Your task to perform on an android device: Open location settings Image 0: 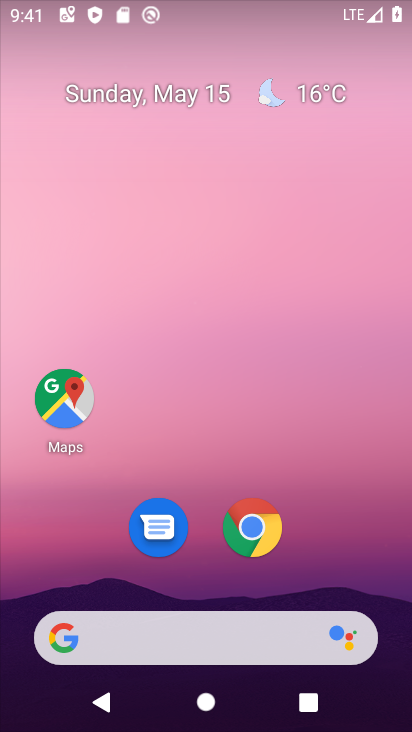
Step 0: drag from (340, 552) to (321, 2)
Your task to perform on an android device: Open location settings Image 1: 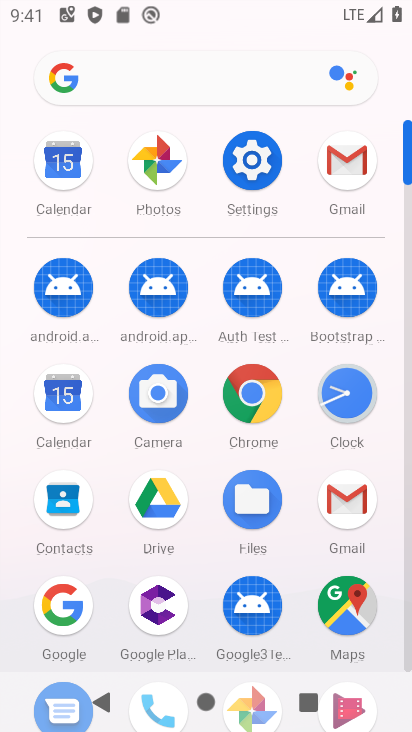
Step 1: click (251, 170)
Your task to perform on an android device: Open location settings Image 2: 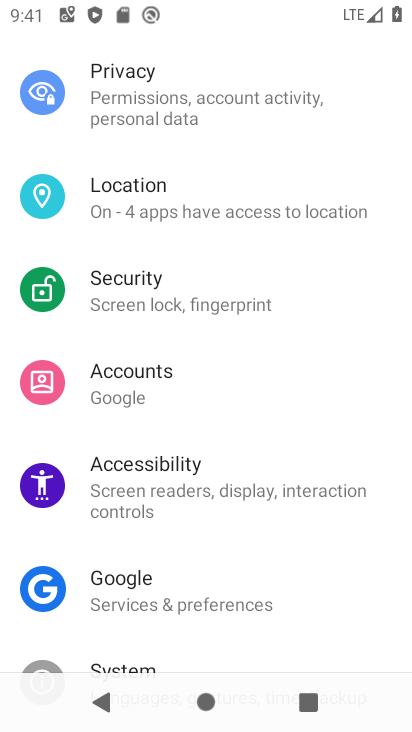
Step 2: click (161, 198)
Your task to perform on an android device: Open location settings Image 3: 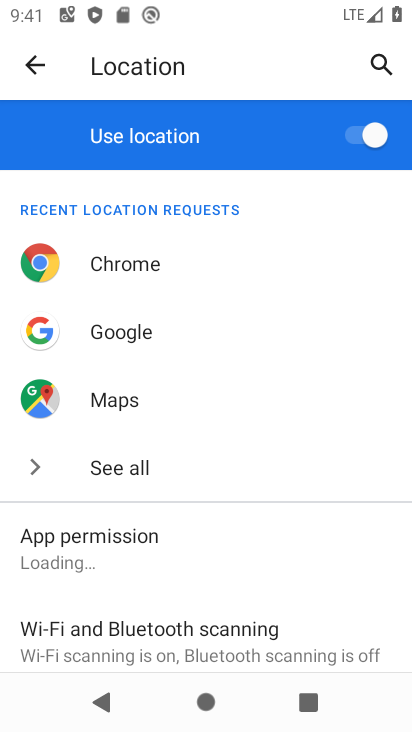
Step 3: task complete